Your task to perform on an android device: turn on priority inbox in the gmail app Image 0: 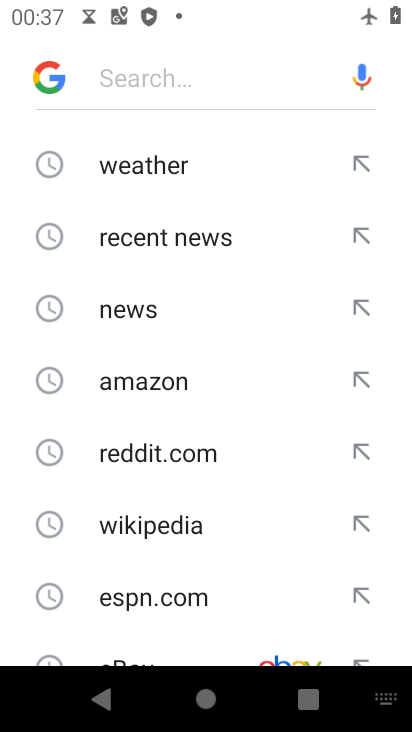
Step 0: press home button
Your task to perform on an android device: turn on priority inbox in the gmail app Image 1: 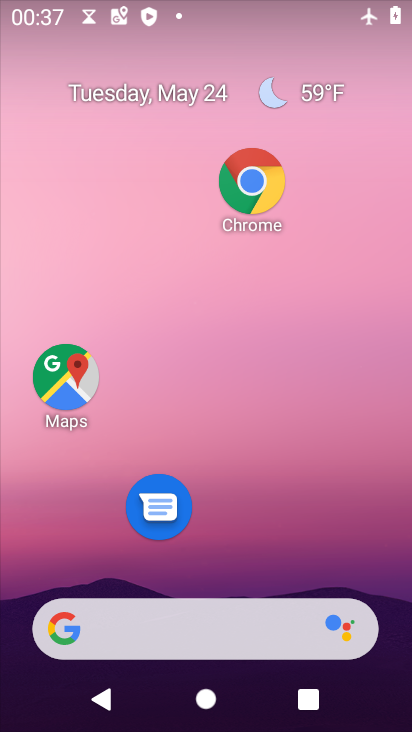
Step 1: click (347, 207)
Your task to perform on an android device: turn on priority inbox in the gmail app Image 2: 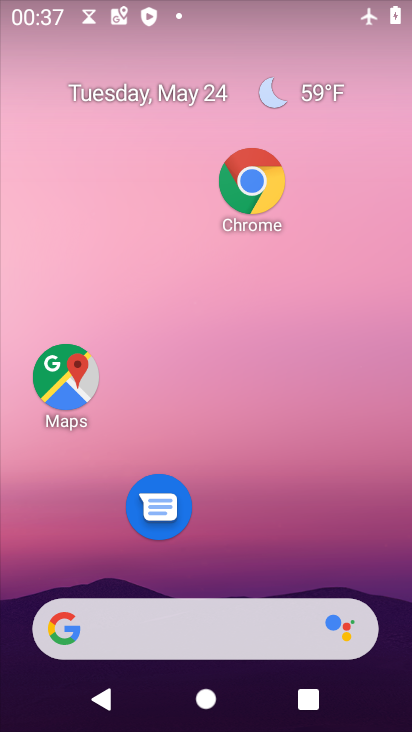
Step 2: drag from (189, 493) to (220, 2)
Your task to perform on an android device: turn on priority inbox in the gmail app Image 3: 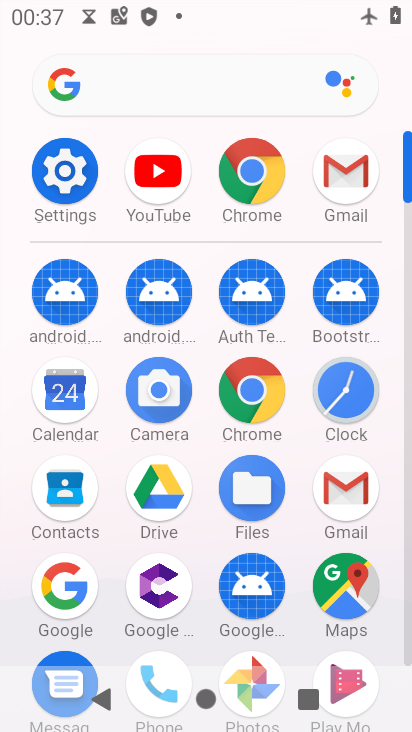
Step 3: click (346, 474)
Your task to perform on an android device: turn on priority inbox in the gmail app Image 4: 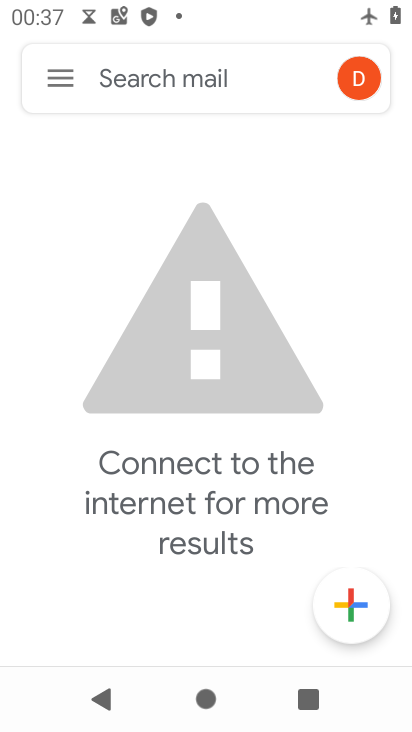
Step 4: click (54, 66)
Your task to perform on an android device: turn on priority inbox in the gmail app Image 5: 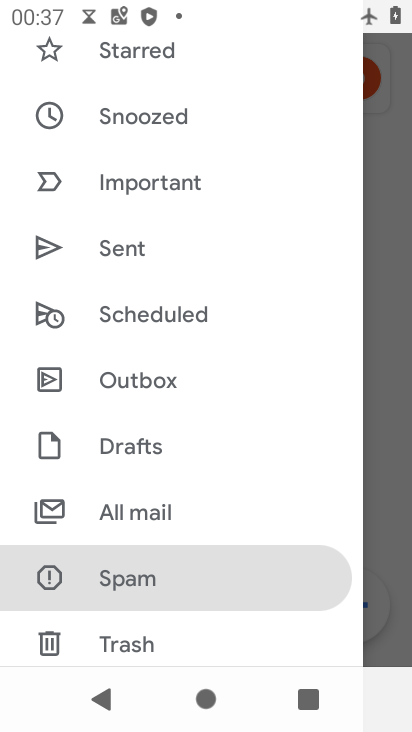
Step 5: drag from (199, 598) to (202, 87)
Your task to perform on an android device: turn on priority inbox in the gmail app Image 6: 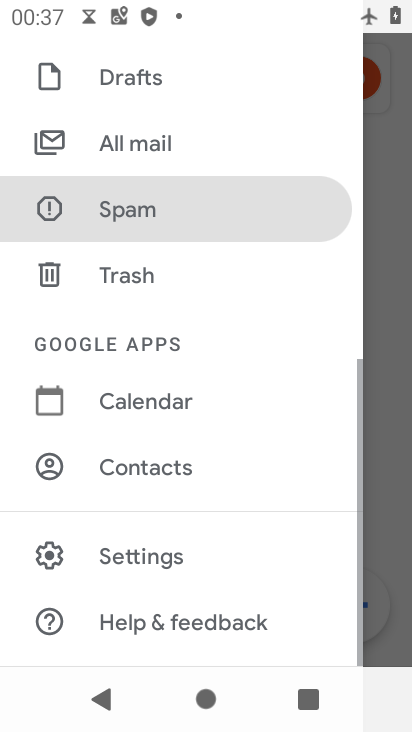
Step 6: click (156, 564)
Your task to perform on an android device: turn on priority inbox in the gmail app Image 7: 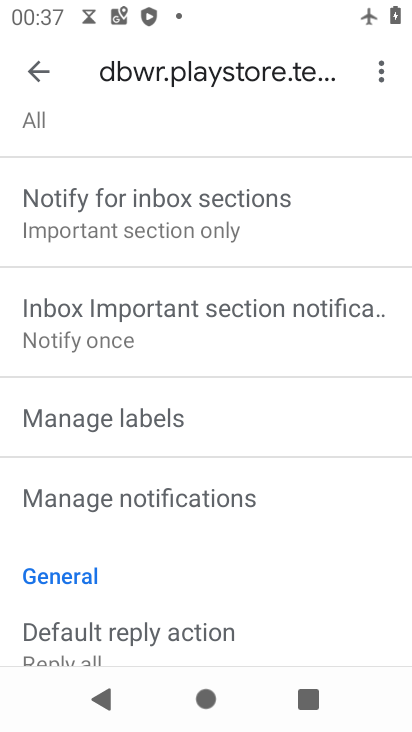
Step 7: task complete